Your task to perform on an android device: toggle javascript in the chrome app Image 0: 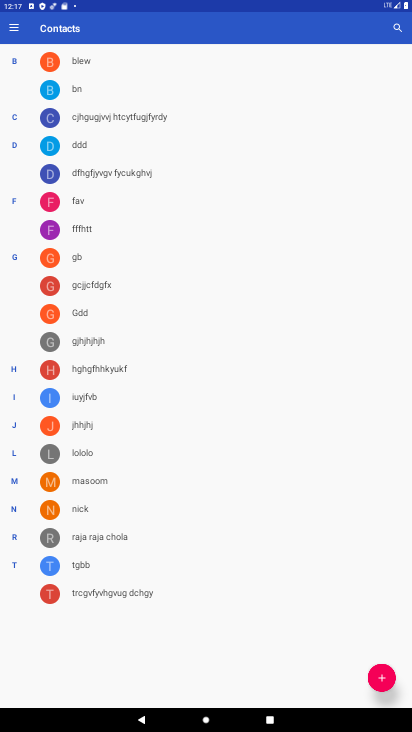
Step 0: press home button
Your task to perform on an android device: toggle javascript in the chrome app Image 1: 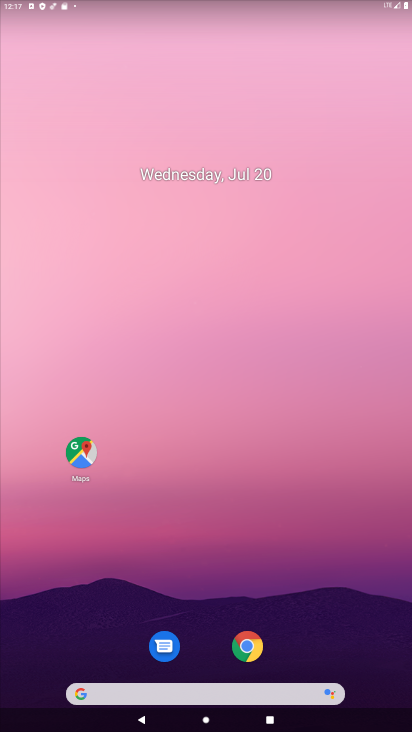
Step 1: click (249, 649)
Your task to perform on an android device: toggle javascript in the chrome app Image 2: 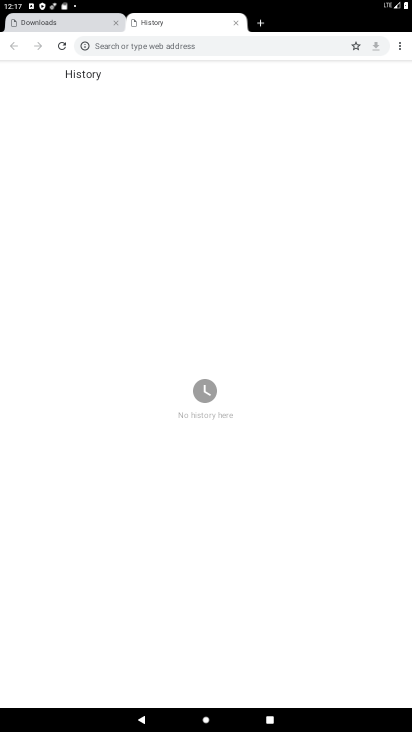
Step 2: click (395, 53)
Your task to perform on an android device: toggle javascript in the chrome app Image 3: 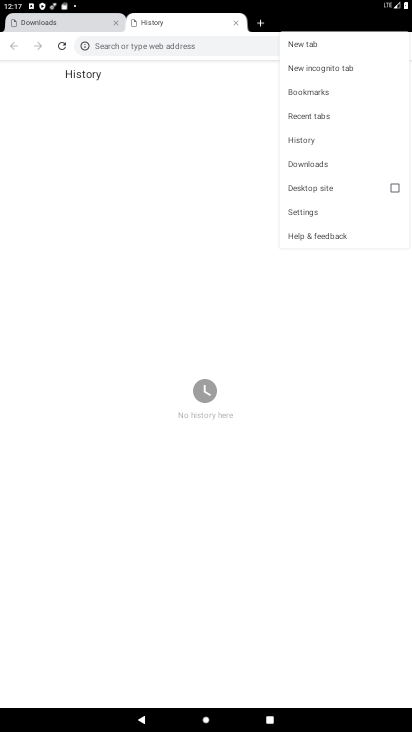
Step 3: click (292, 219)
Your task to perform on an android device: toggle javascript in the chrome app Image 4: 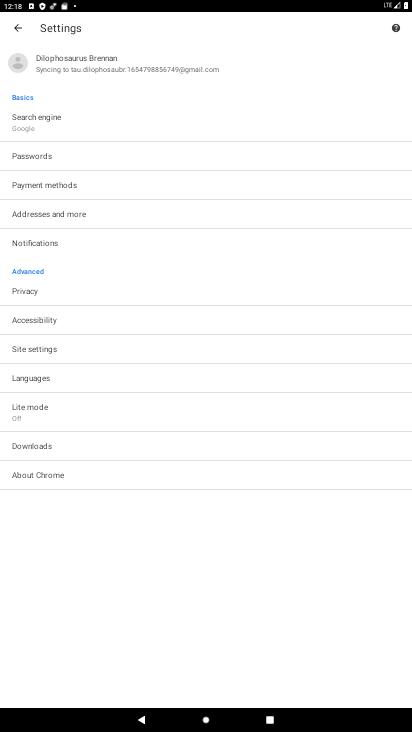
Step 4: click (82, 341)
Your task to perform on an android device: toggle javascript in the chrome app Image 5: 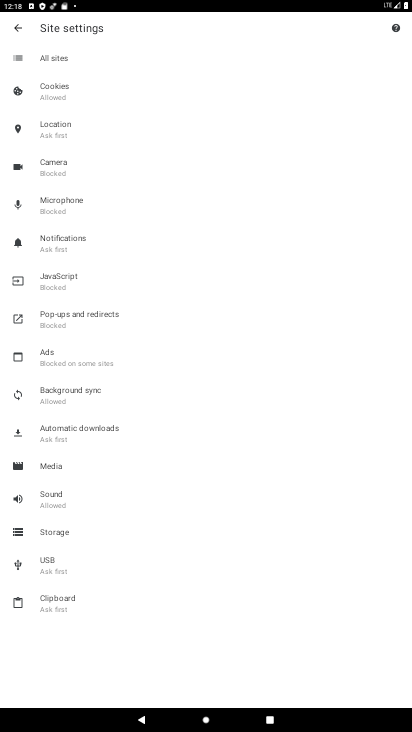
Step 5: click (67, 285)
Your task to perform on an android device: toggle javascript in the chrome app Image 6: 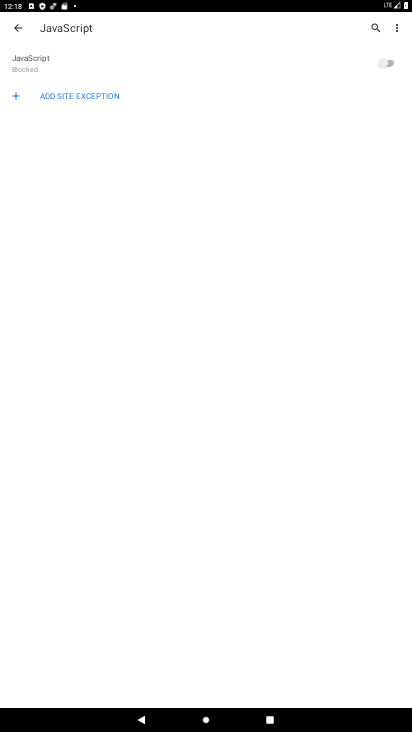
Step 6: click (396, 66)
Your task to perform on an android device: toggle javascript in the chrome app Image 7: 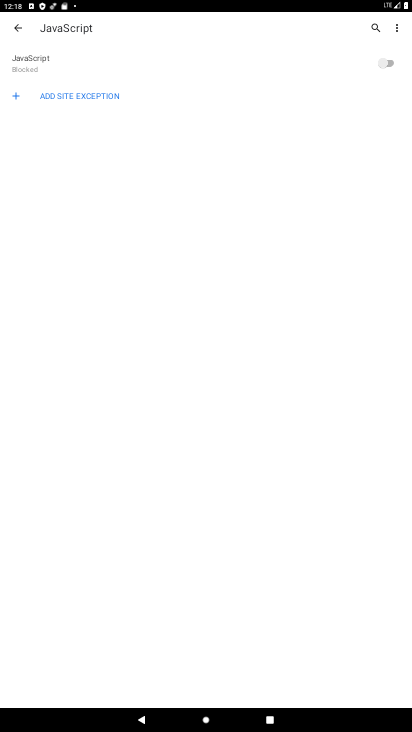
Step 7: click (396, 66)
Your task to perform on an android device: toggle javascript in the chrome app Image 8: 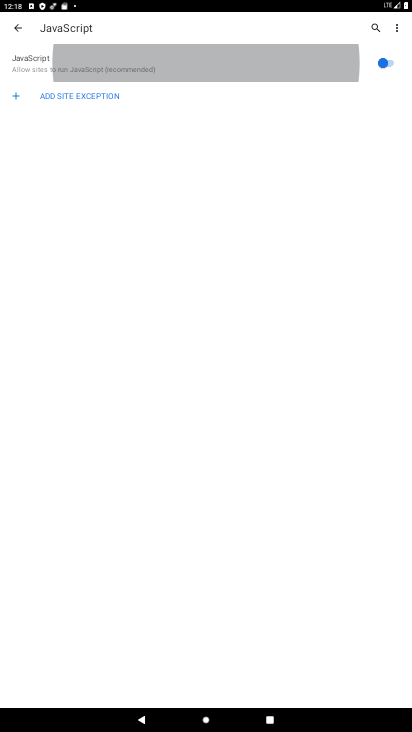
Step 8: click (396, 66)
Your task to perform on an android device: toggle javascript in the chrome app Image 9: 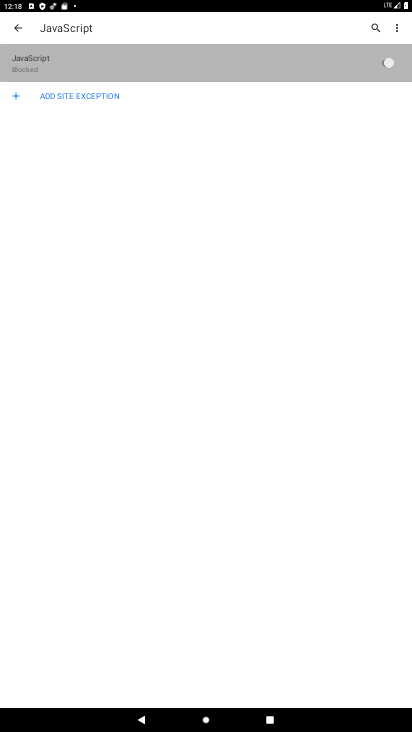
Step 9: click (396, 66)
Your task to perform on an android device: toggle javascript in the chrome app Image 10: 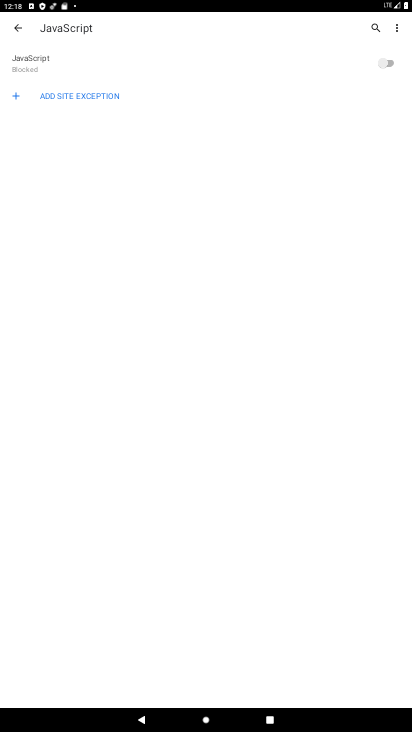
Step 10: click (396, 66)
Your task to perform on an android device: toggle javascript in the chrome app Image 11: 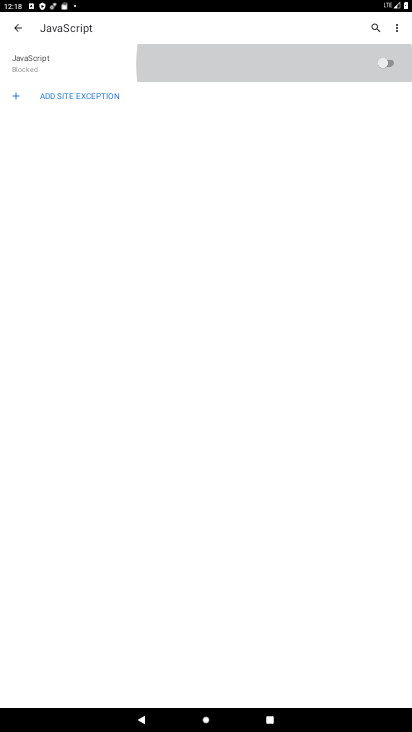
Step 11: click (396, 66)
Your task to perform on an android device: toggle javascript in the chrome app Image 12: 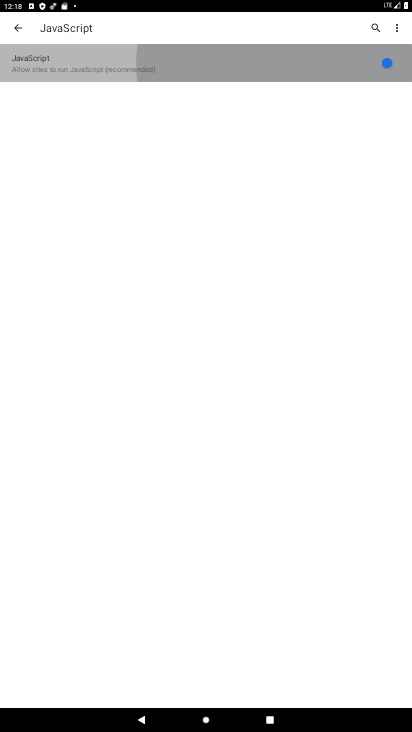
Step 12: click (396, 66)
Your task to perform on an android device: toggle javascript in the chrome app Image 13: 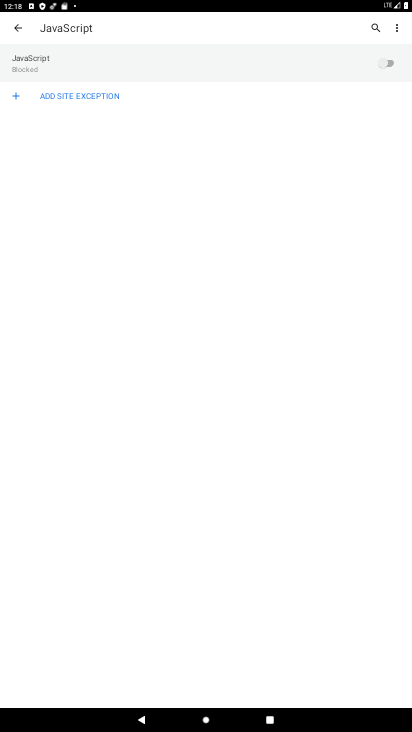
Step 13: click (396, 66)
Your task to perform on an android device: toggle javascript in the chrome app Image 14: 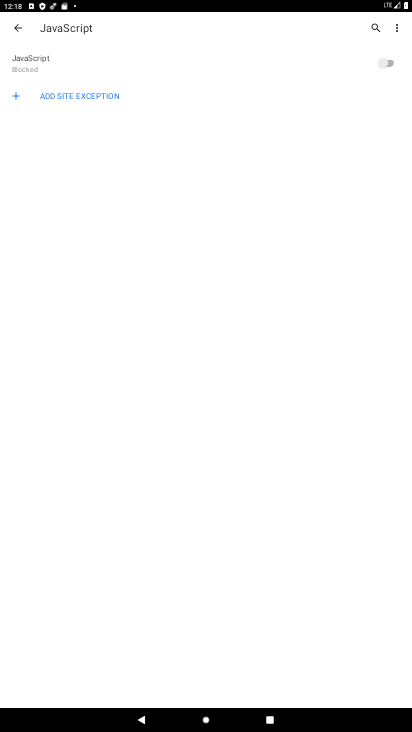
Step 14: task complete